Your task to perform on an android device: turn on data saver in the chrome app Image 0: 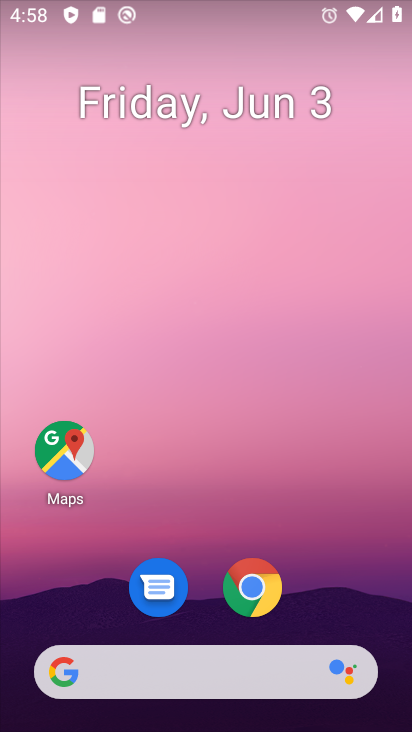
Step 0: click (263, 592)
Your task to perform on an android device: turn on data saver in the chrome app Image 1: 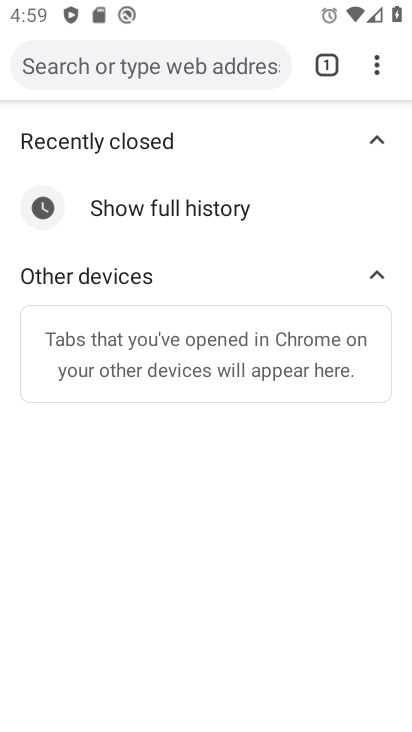
Step 1: click (375, 61)
Your task to perform on an android device: turn on data saver in the chrome app Image 2: 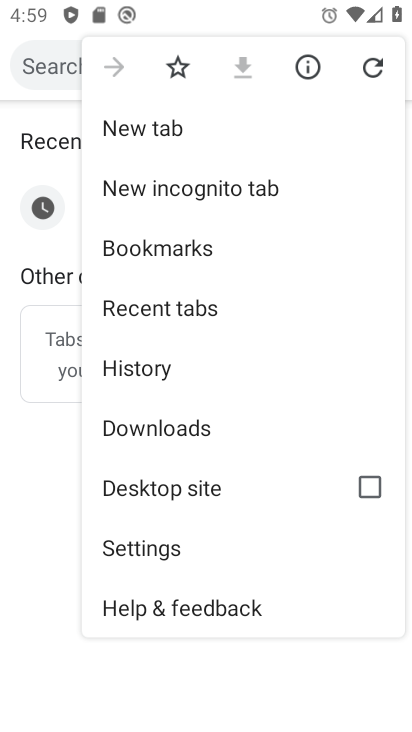
Step 2: click (155, 546)
Your task to perform on an android device: turn on data saver in the chrome app Image 3: 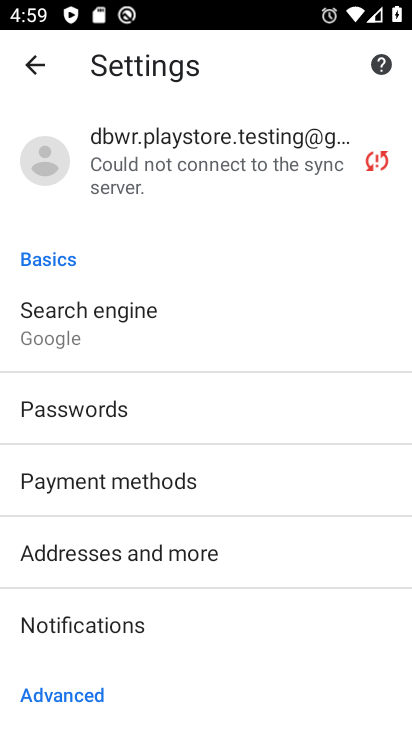
Step 3: drag from (211, 660) to (230, 170)
Your task to perform on an android device: turn on data saver in the chrome app Image 4: 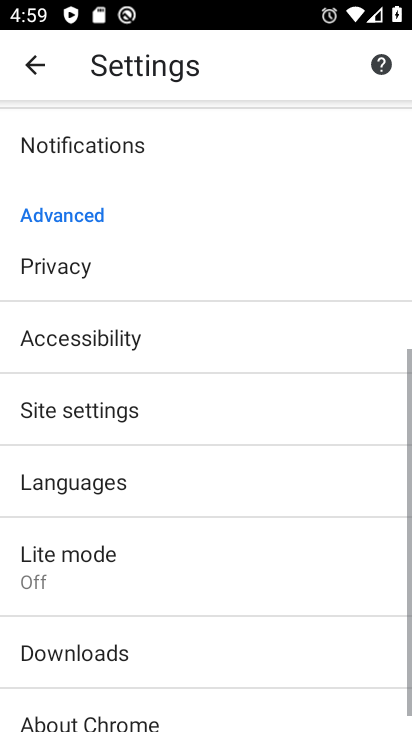
Step 4: click (114, 570)
Your task to perform on an android device: turn on data saver in the chrome app Image 5: 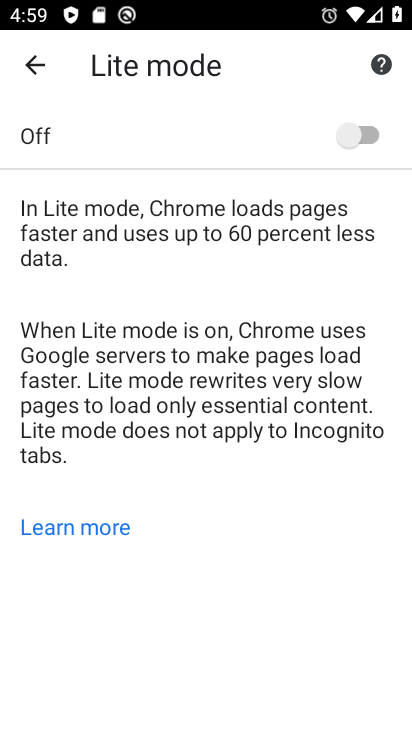
Step 5: click (379, 134)
Your task to perform on an android device: turn on data saver in the chrome app Image 6: 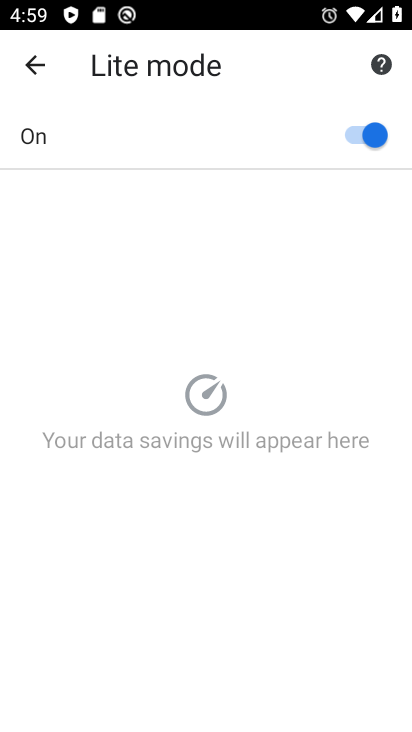
Step 6: task complete